Your task to perform on an android device: Is it going to rain tomorrow? Image 0: 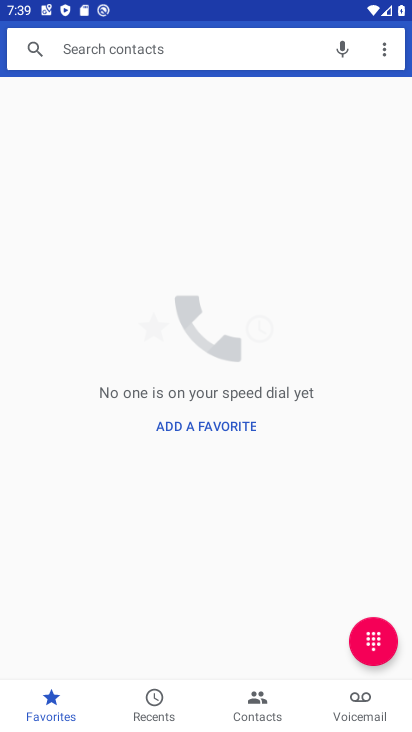
Step 0: press home button
Your task to perform on an android device: Is it going to rain tomorrow? Image 1: 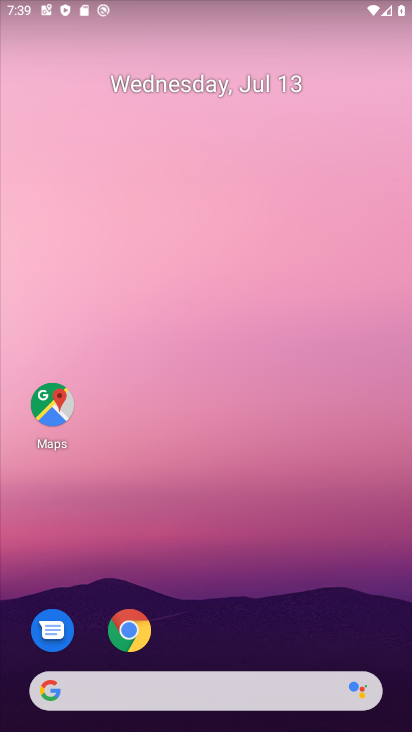
Step 1: click (249, 691)
Your task to perform on an android device: Is it going to rain tomorrow? Image 2: 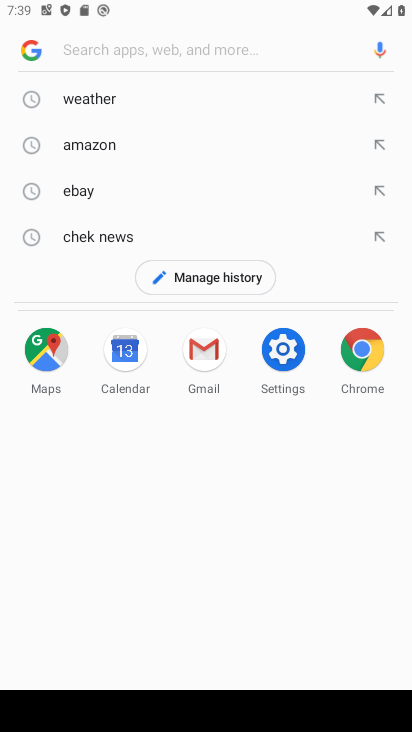
Step 2: click (126, 95)
Your task to perform on an android device: Is it going to rain tomorrow? Image 3: 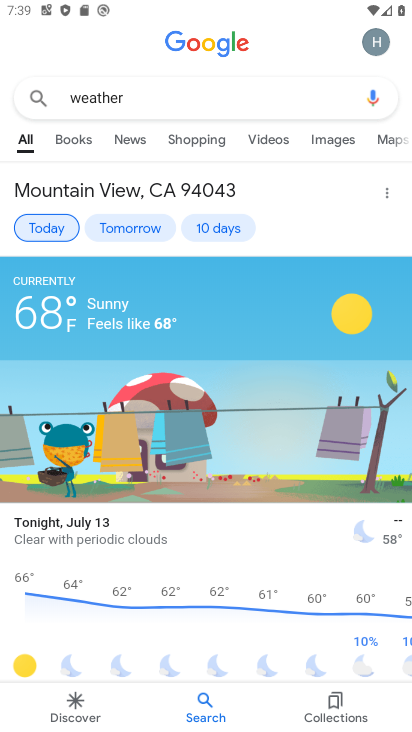
Step 3: click (120, 219)
Your task to perform on an android device: Is it going to rain tomorrow? Image 4: 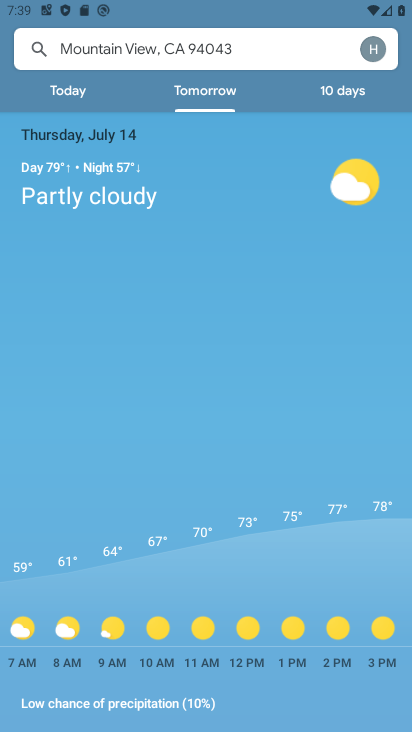
Step 4: task complete